Your task to perform on an android device: turn on airplane mode Image 0: 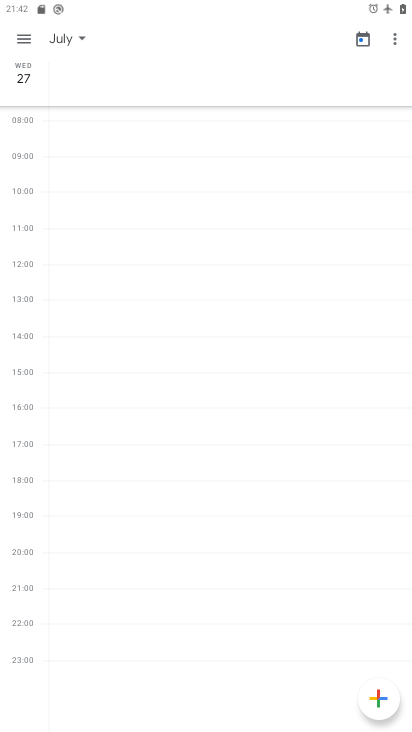
Step 0: click (229, 635)
Your task to perform on an android device: turn on airplane mode Image 1: 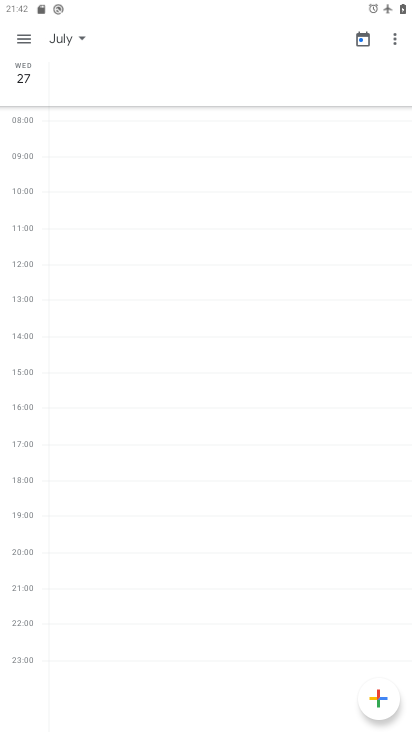
Step 1: press home button
Your task to perform on an android device: turn on airplane mode Image 2: 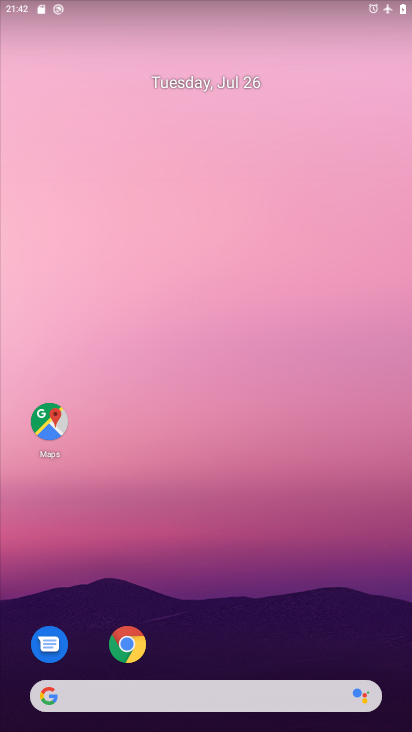
Step 2: drag from (228, 659) to (228, 204)
Your task to perform on an android device: turn on airplane mode Image 3: 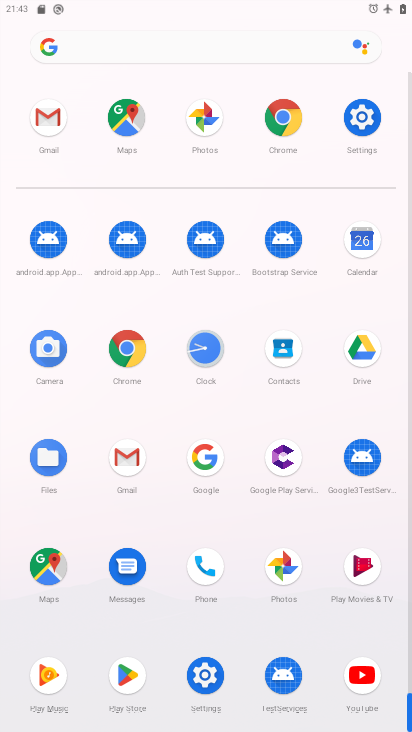
Step 3: click (353, 107)
Your task to perform on an android device: turn on airplane mode Image 4: 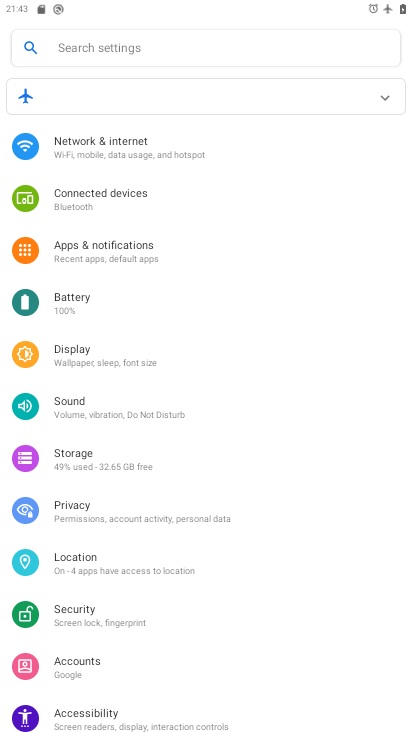
Step 4: click (87, 141)
Your task to perform on an android device: turn on airplane mode Image 5: 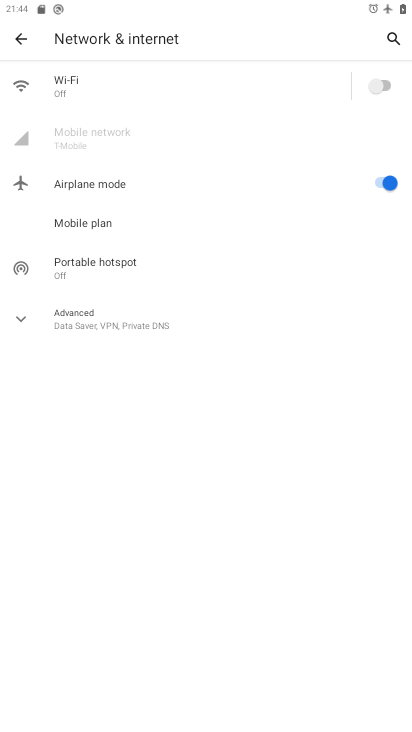
Step 5: task complete